Your task to perform on an android device: Open Google Chrome and open the bookmarks view Image 0: 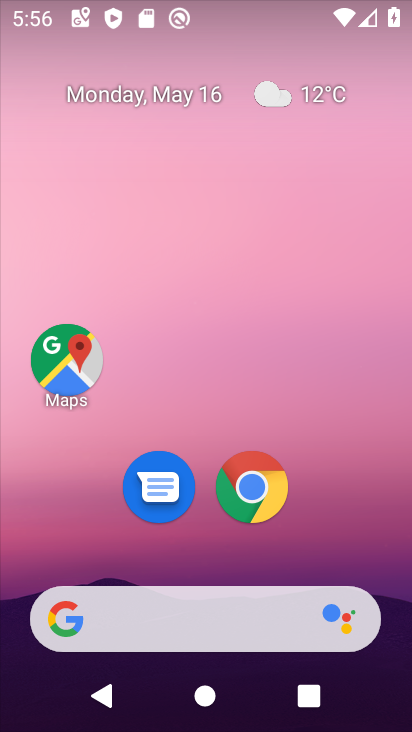
Step 0: drag from (358, 480) to (342, 120)
Your task to perform on an android device: Open Google Chrome and open the bookmarks view Image 1: 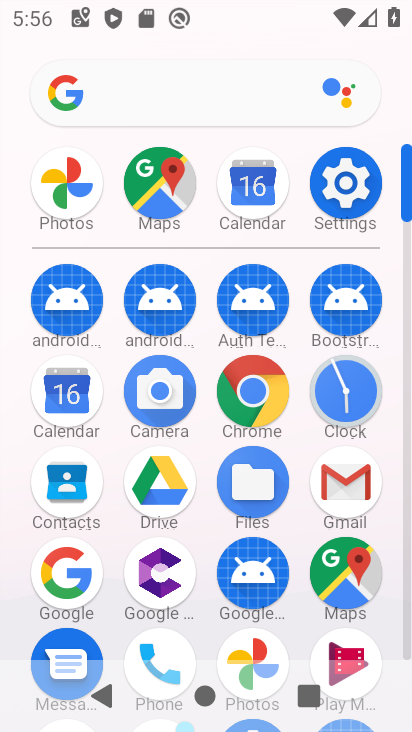
Step 1: click (265, 387)
Your task to perform on an android device: Open Google Chrome and open the bookmarks view Image 2: 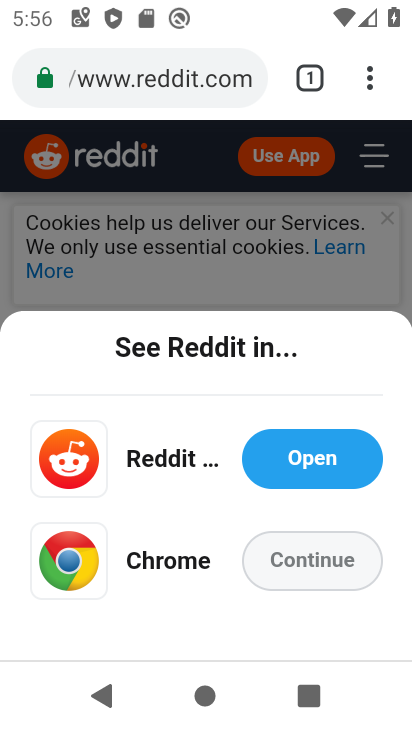
Step 2: task complete